Your task to perform on an android device: Open display settings Image 0: 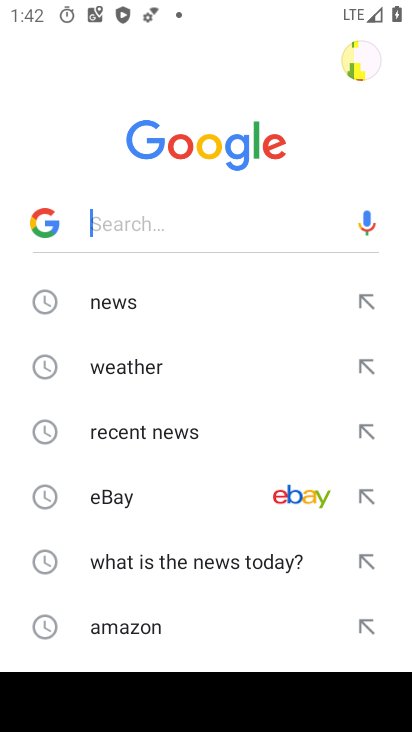
Step 0: press home button
Your task to perform on an android device: Open display settings Image 1: 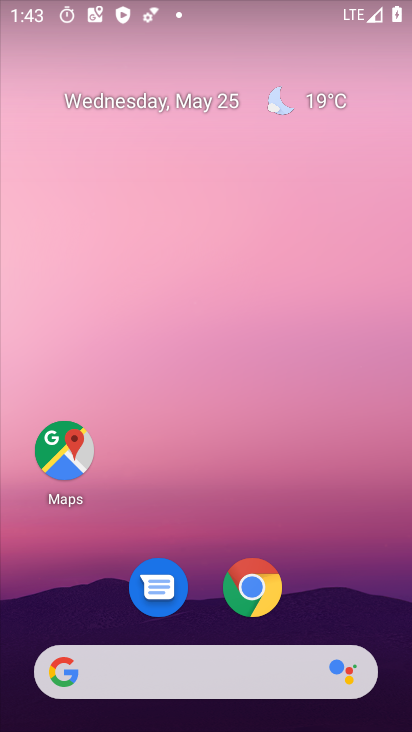
Step 1: drag from (190, 707) to (185, 75)
Your task to perform on an android device: Open display settings Image 2: 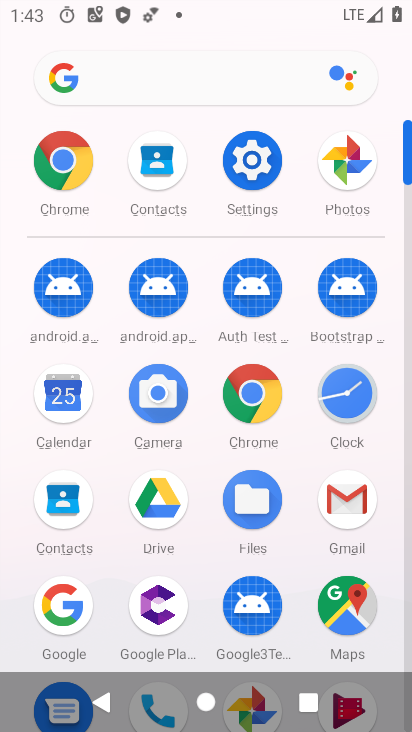
Step 2: click (244, 165)
Your task to perform on an android device: Open display settings Image 3: 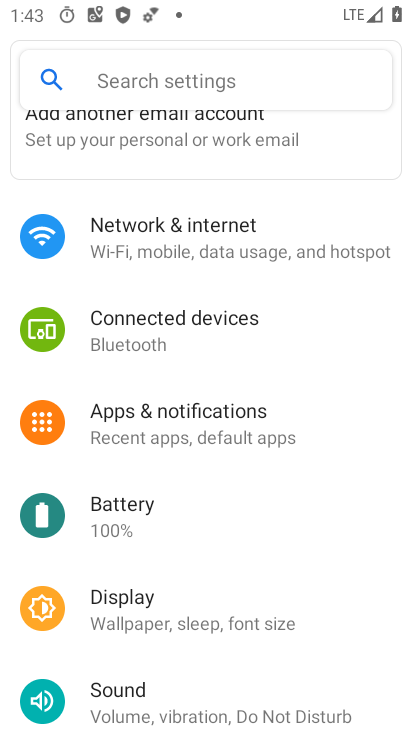
Step 3: click (131, 609)
Your task to perform on an android device: Open display settings Image 4: 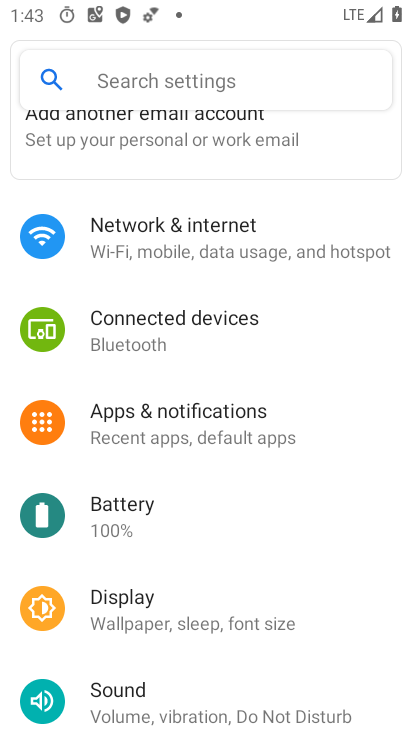
Step 4: click (110, 611)
Your task to perform on an android device: Open display settings Image 5: 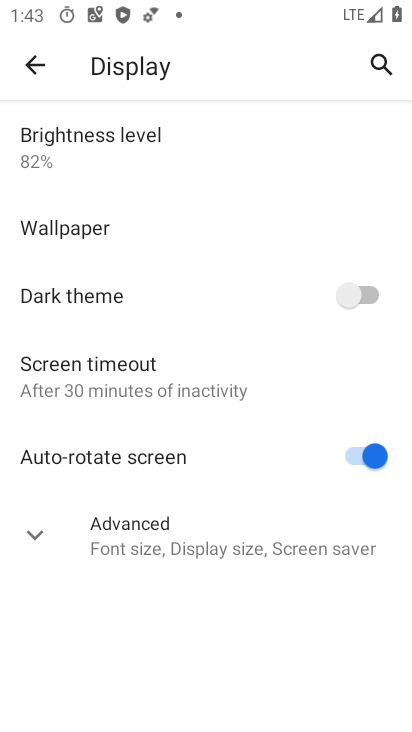
Step 5: task complete